Your task to perform on an android device: turn notification dots off Image 0: 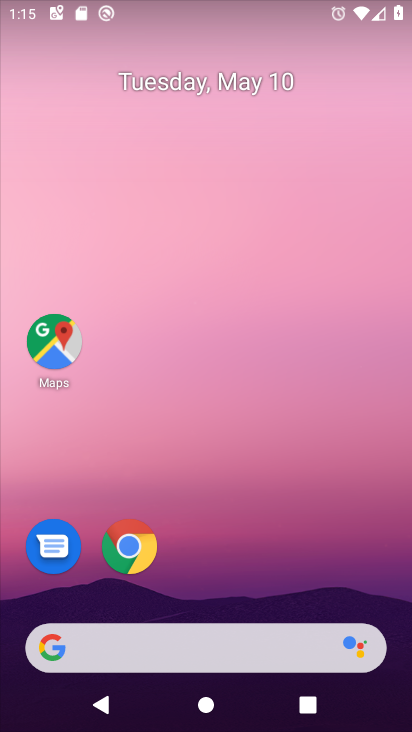
Step 0: press home button
Your task to perform on an android device: turn notification dots off Image 1: 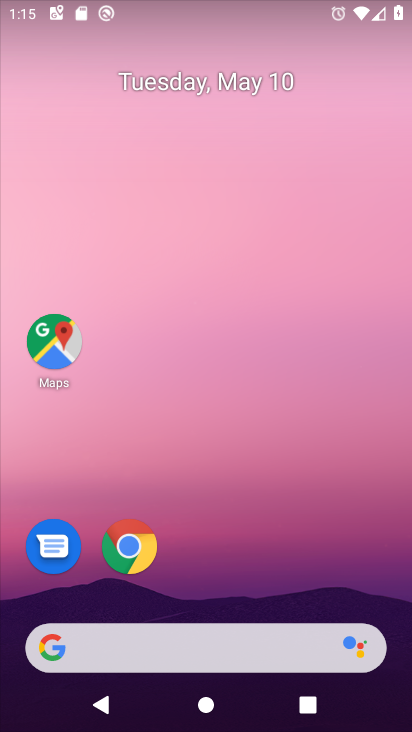
Step 1: drag from (290, 587) to (17, 7)
Your task to perform on an android device: turn notification dots off Image 2: 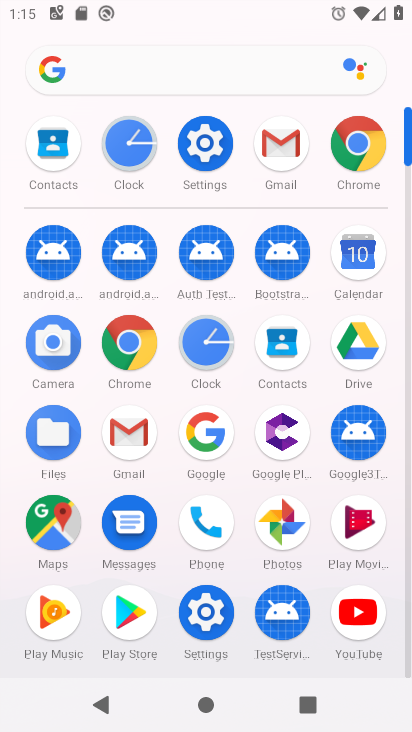
Step 2: click (207, 148)
Your task to perform on an android device: turn notification dots off Image 3: 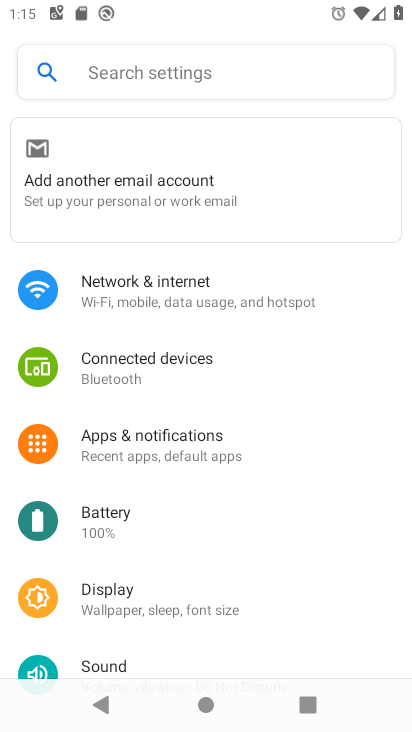
Step 3: drag from (215, 505) to (174, 158)
Your task to perform on an android device: turn notification dots off Image 4: 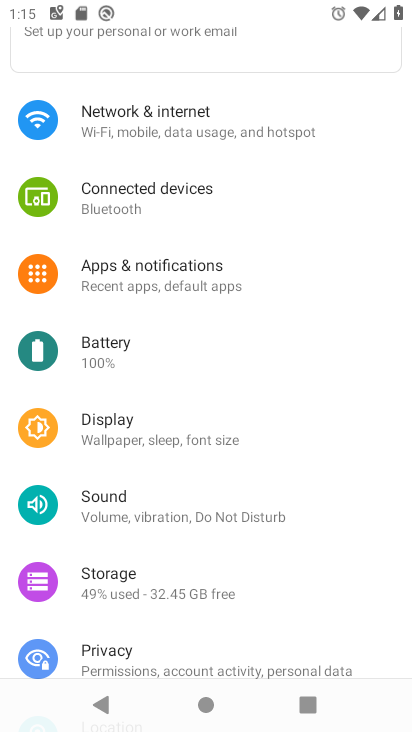
Step 4: drag from (169, 366) to (169, 258)
Your task to perform on an android device: turn notification dots off Image 5: 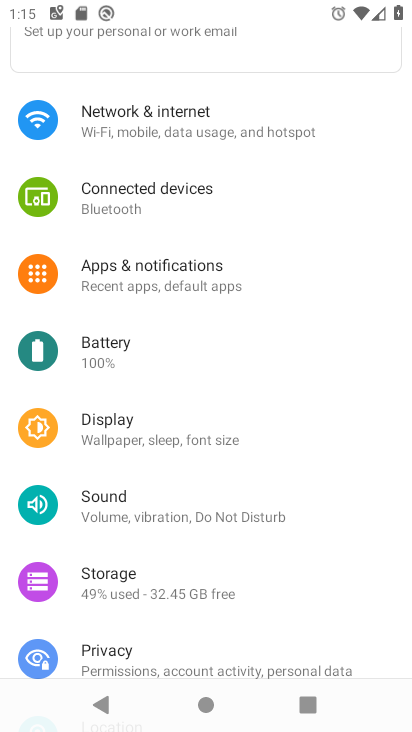
Step 5: drag from (234, 493) to (190, 248)
Your task to perform on an android device: turn notification dots off Image 6: 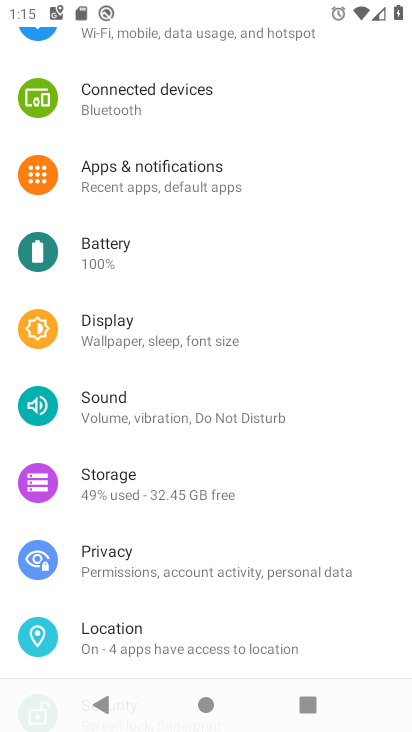
Step 6: drag from (197, 149) to (215, 529)
Your task to perform on an android device: turn notification dots off Image 7: 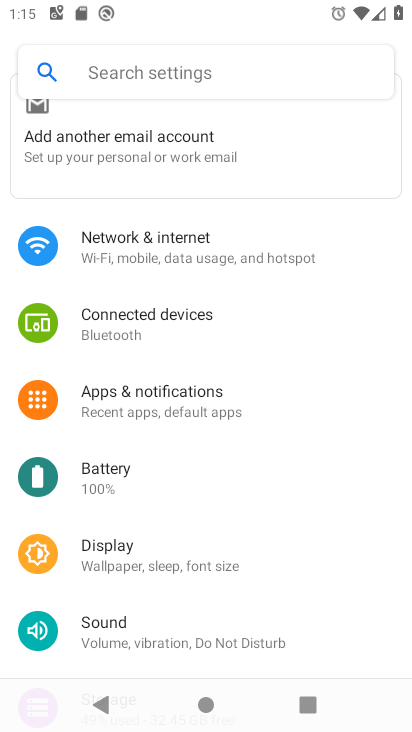
Step 7: click (192, 392)
Your task to perform on an android device: turn notification dots off Image 8: 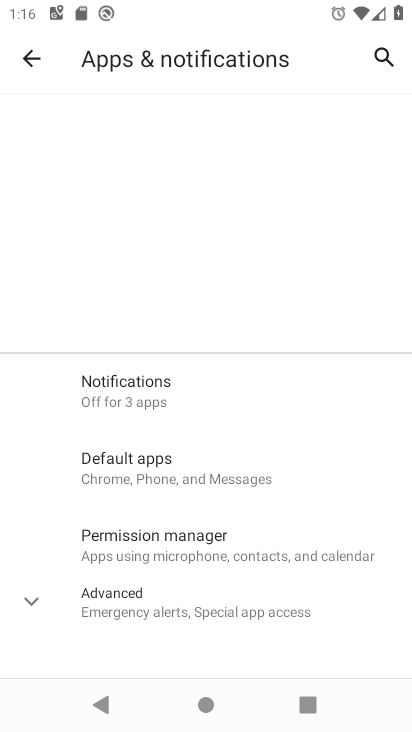
Step 8: drag from (249, 595) to (262, 189)
Your task to perform on an android device: turn notification dots off Image 9: 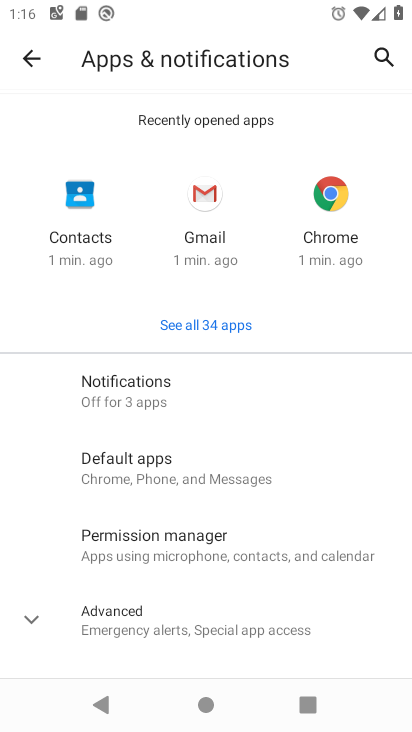
Step 9: click (166, 381)
Your task to perform on an android device: turn notification dots off Image 10: 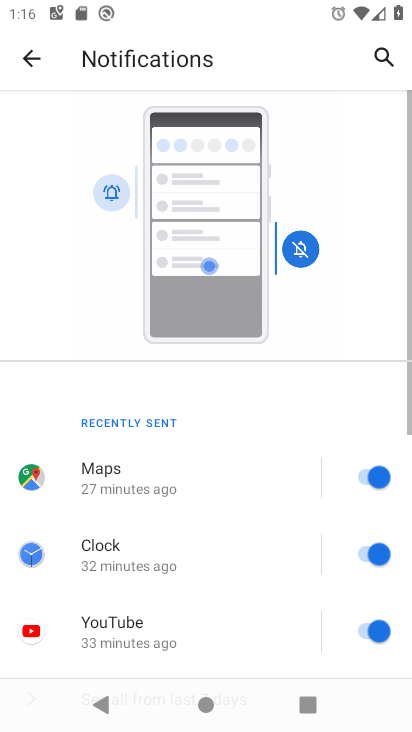
Step 10: drag from (202, 648) to (180, 157)
Your task to perform on an android device: turn notification dots off Image 11: 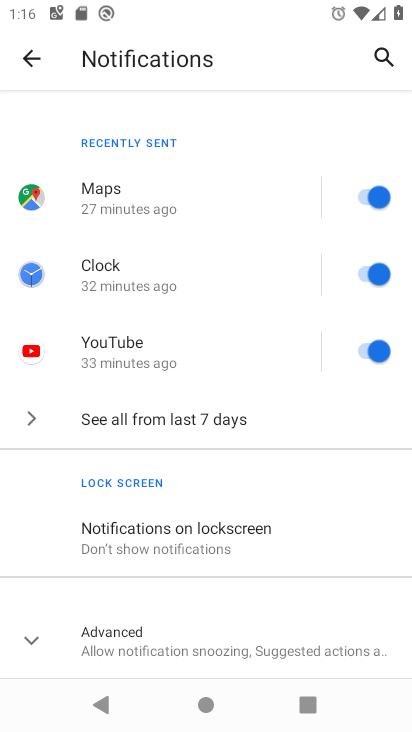
Step 11: click (185, 626)
Your task to perform on an android device: turn notification dots off Image 12: 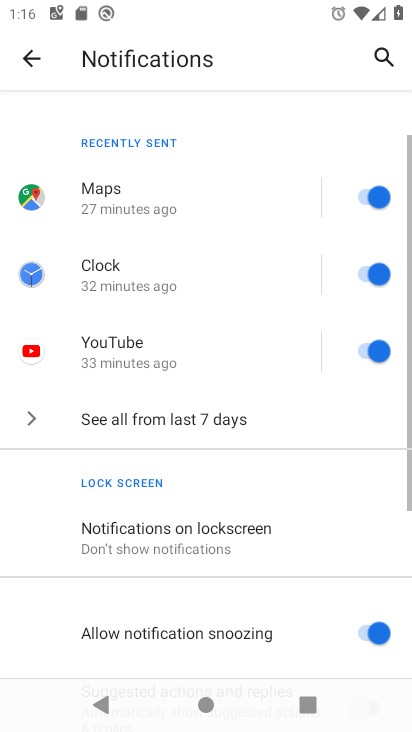
Step 12: drag from (256, 637) to (290, 167)
Your task to perform on an android device: turn notification dots off Image 13: 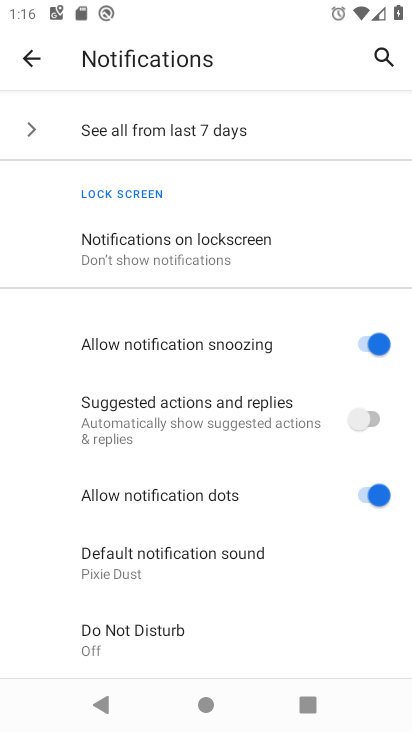
Step 13: click (248, 493)
Your task to perform on an android device: turn notification dots off Image 14: 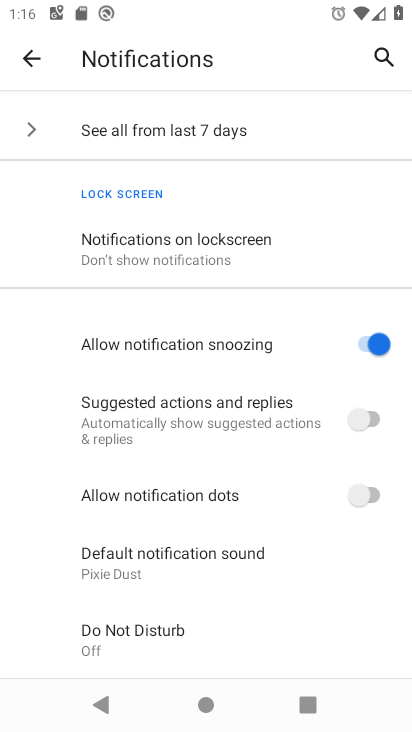
Step 14: task complete